Your task to perform on an android device: Is it going to rain tomorrow? Image 0: 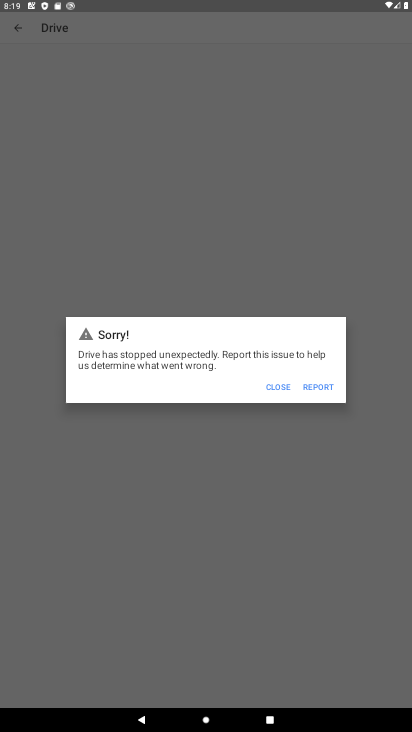
Step 0: press home button
Your task to perform on an android device: Is it going to rain tomorrow? Image 1: 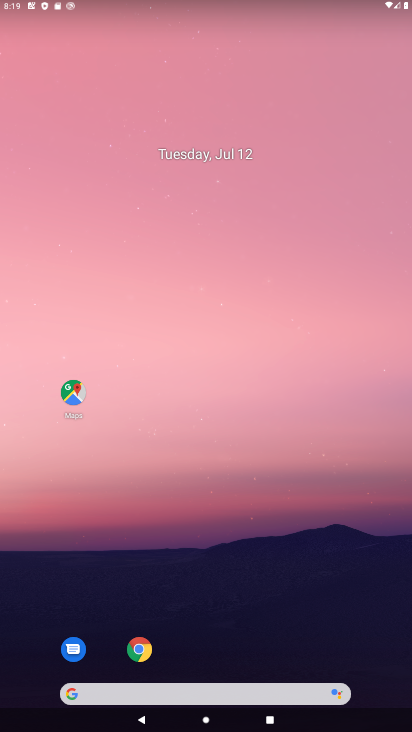
Step 1: drag from (255, 640) to (303, 173)
Your task to perform on an android device: Is it going to rain tomorrow? Image 2: 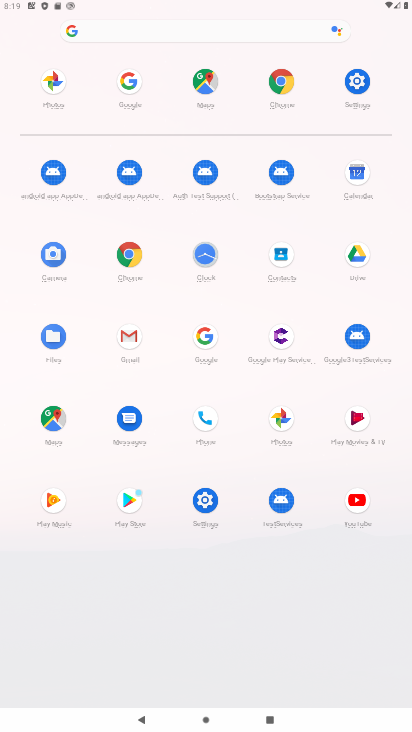
Step 2: click (206, 337)
Your task to perform on an android device: Is it going to rain tomorrow? Image 3: 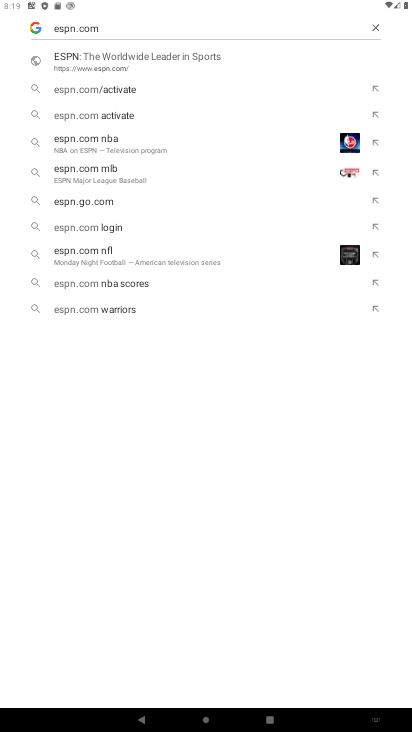
Step 3: click (375, 29)
Your task to perform on an android device: Is it going to rain tomorrow? Image 4: 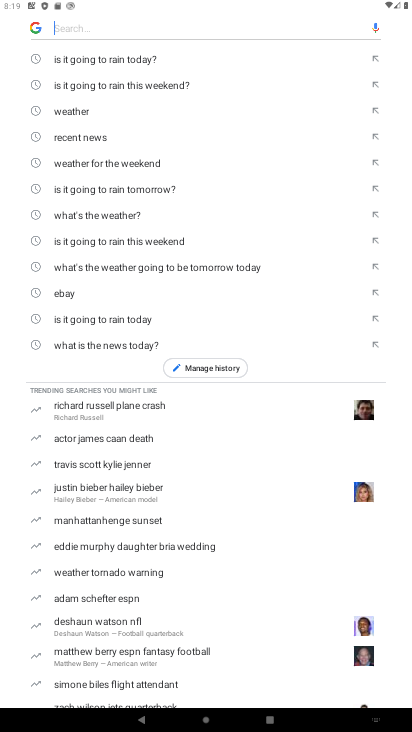
Step 4: click (144, 185)
Your task to perform on an android device: Is it going to rain tomorrow? Image 5: 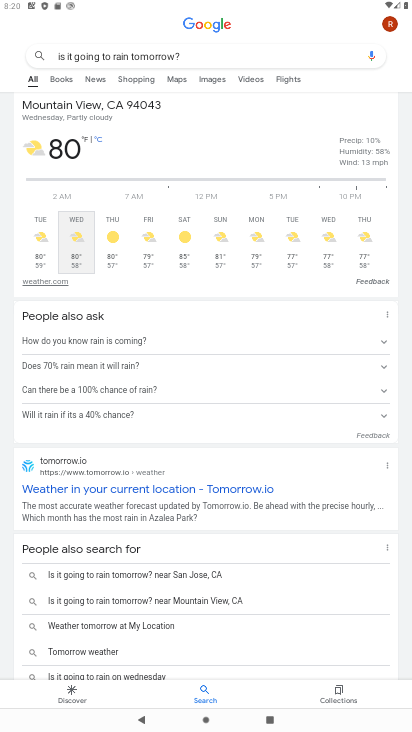
Step 5: task complete